Your task to perform on an android device: Open the phone app and click the voicemail tab. Image 0: 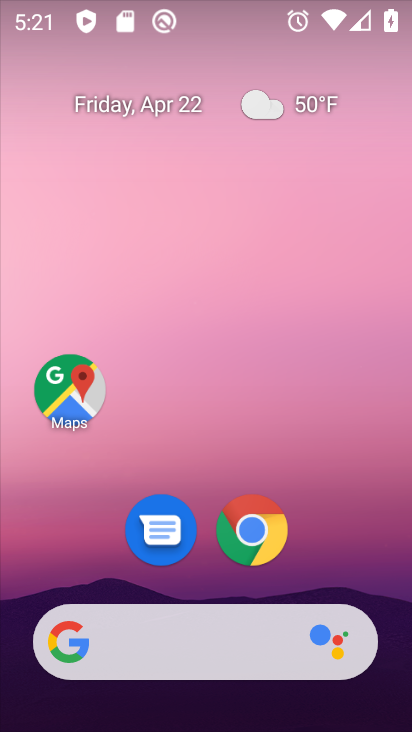
Step 0: drag from (359, 582) to (276, 118)
Your task to perform on an android device: Open the phone app and click the voicemail tab. Image 1: 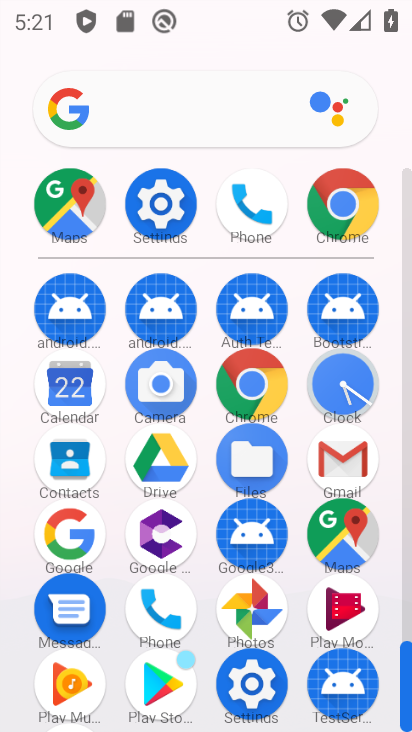
Step 1: click (262, 206)
Your task to perform on an android device: Open the phone app and click the voicemail tab. Image 2: 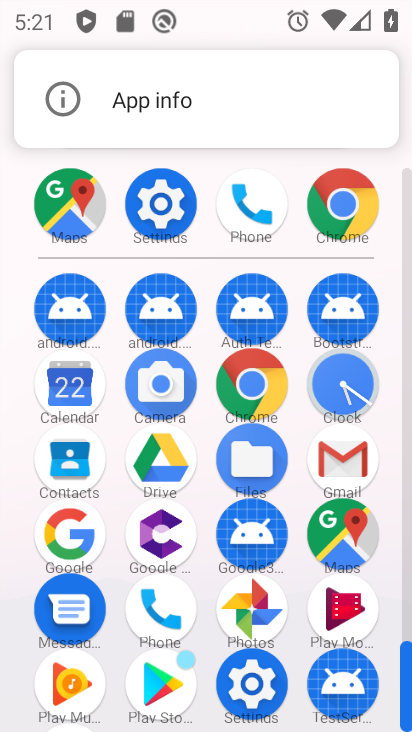
Step 2: click (151, 613)
Your task to perform on an android device: Open the phone app and click the voicemail tab. Image 3: 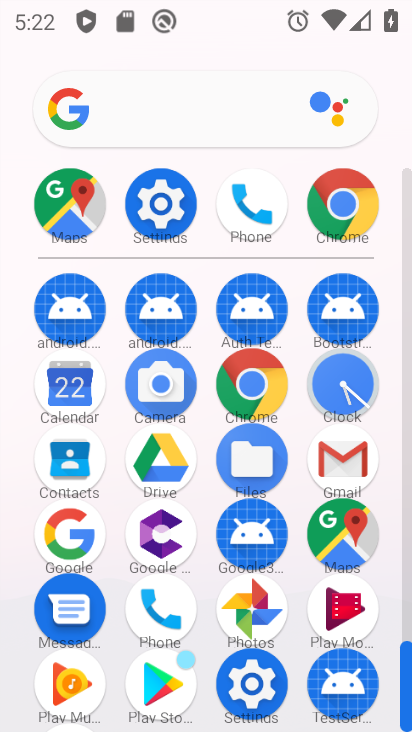
Step 3: click (160, 597)
Your task to perform on an android device: Open the phone app and click the voicemail tab. Image 4: 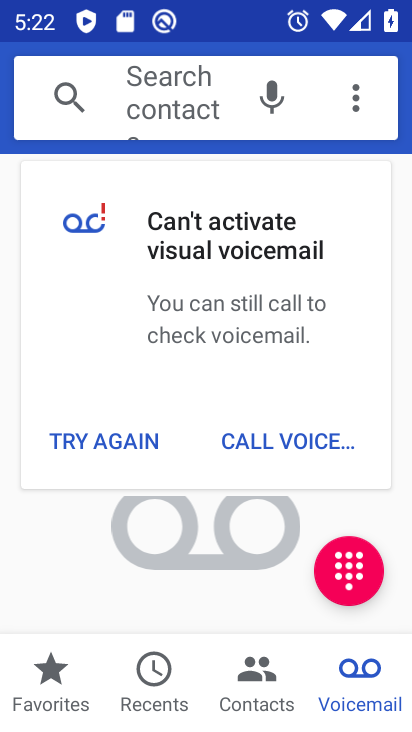
Step 4: click (386, 695)
Your task to perform on an android device: Open the phone app and click the voicemail tab. Image 5: 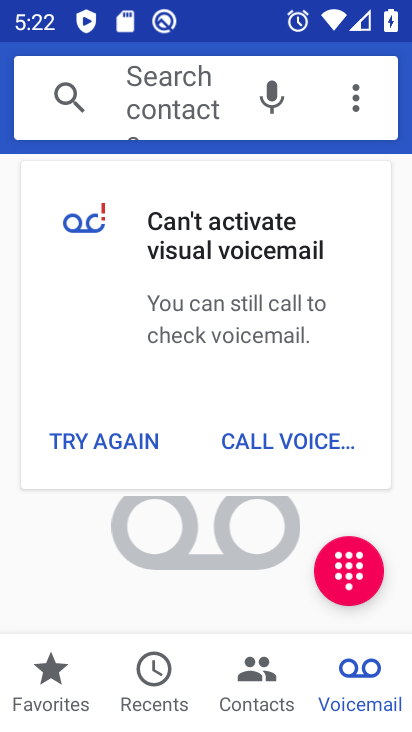
Step 5: task complete